Your task to perform on an android device: Open Youtube and go to "Your channel" Image 0: 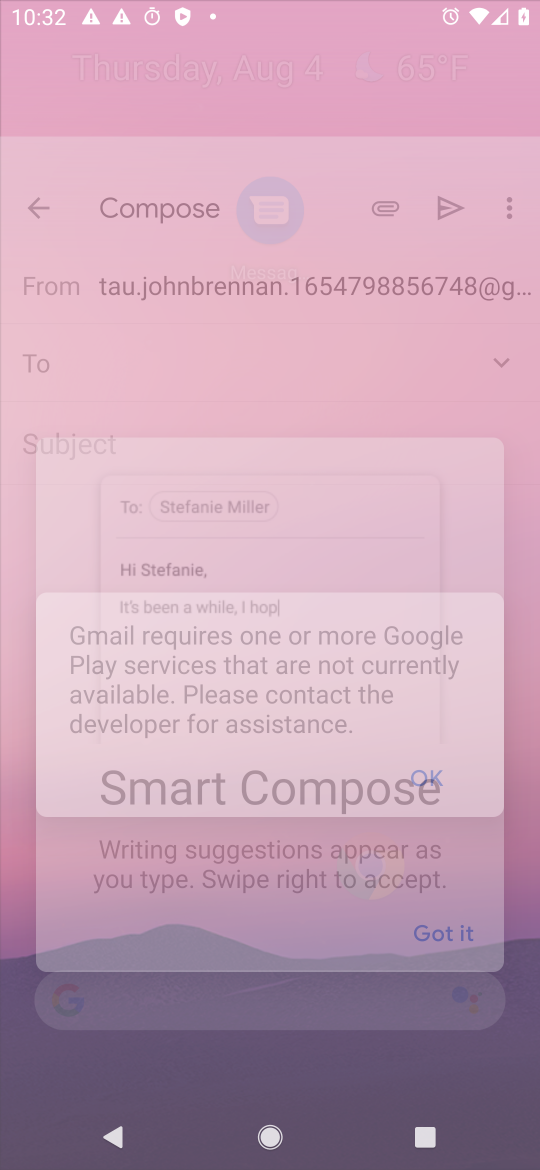
Step 0: click (321, 319)
Your task to perform on an android device: Open Youtube and go to "Your channel" Image 1: 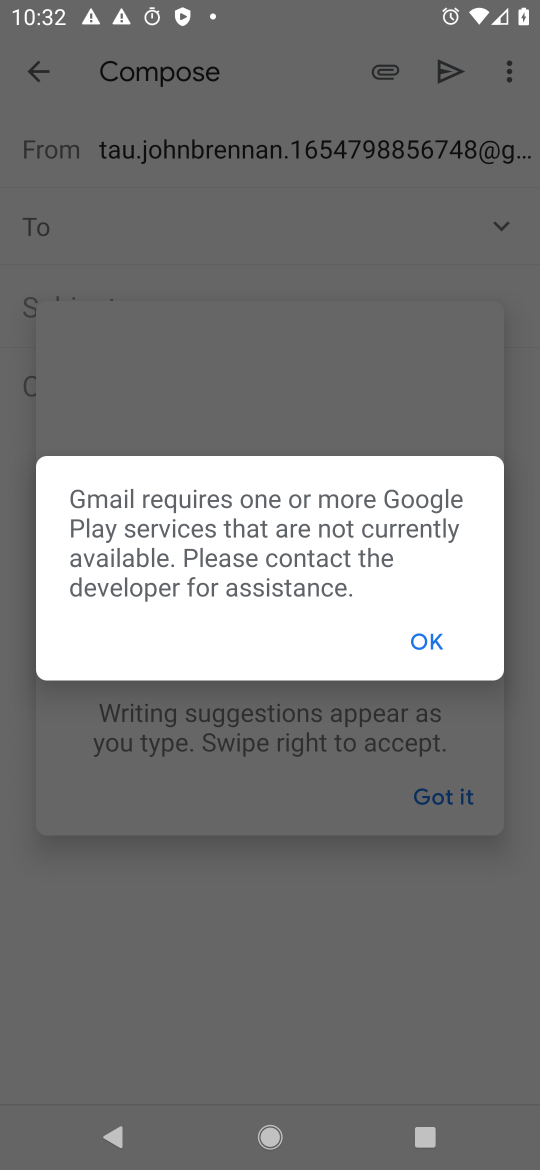
Step 1: drag from (268, 994) to (328, 470)
Your task to perform on an android device: Open Youtube and go to "Your channel" Image 2: 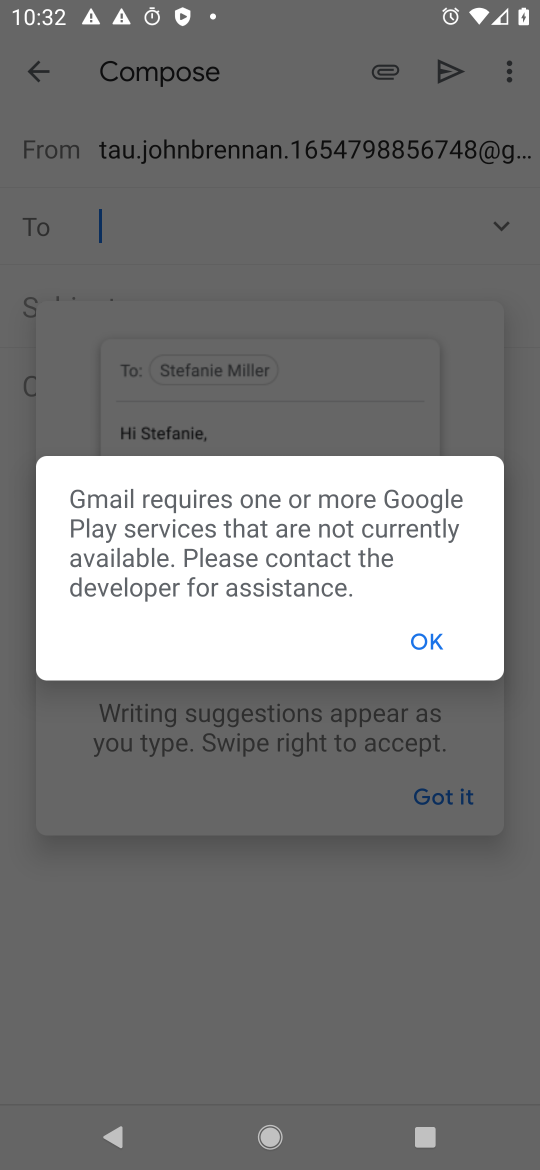
Step 2: press home button
Your task to perform on an android device: Open Youtube and go to "Your channel" Image 3: 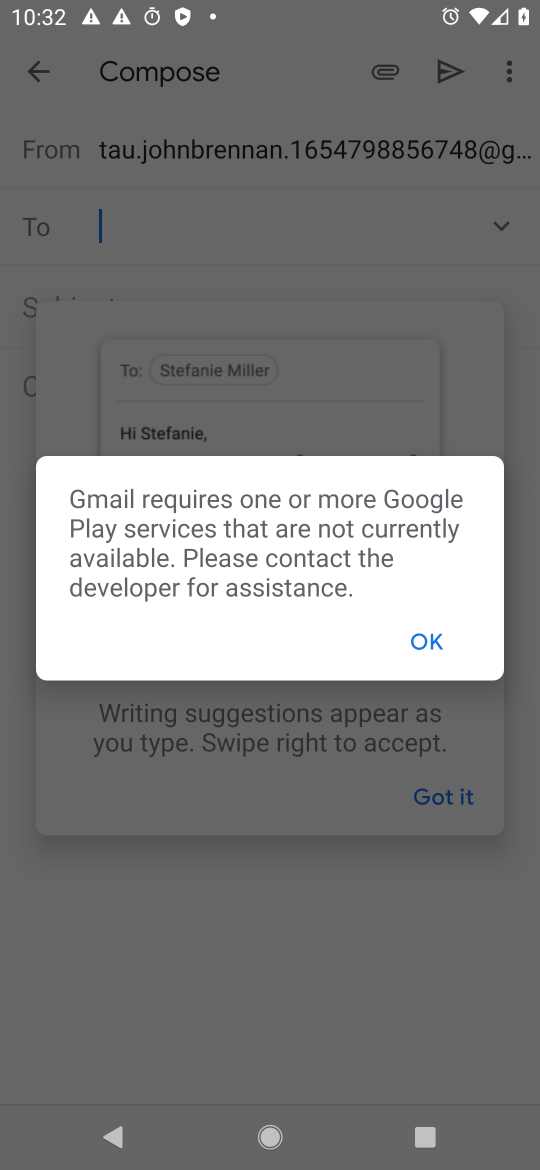
Step 3: click (256, 537)
Your task to perform on an android device: Open Youtube and go to "Your channel" Image 4: 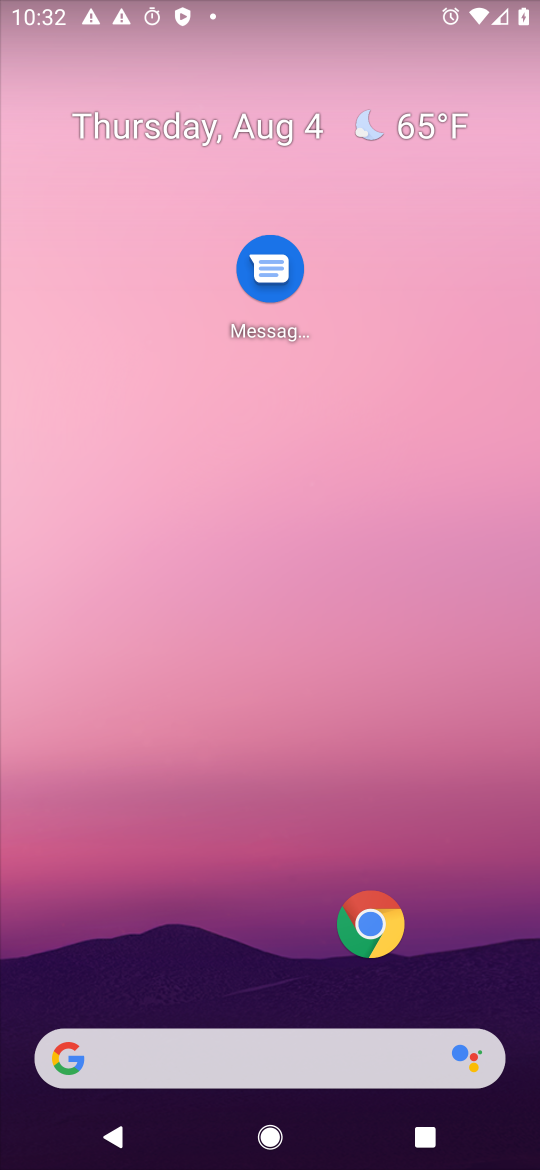
Step 4: drag from (200, 939) to (279, 362)
Your task to perform on an android device: Open Youtube and go to "Your channel" Image 5: 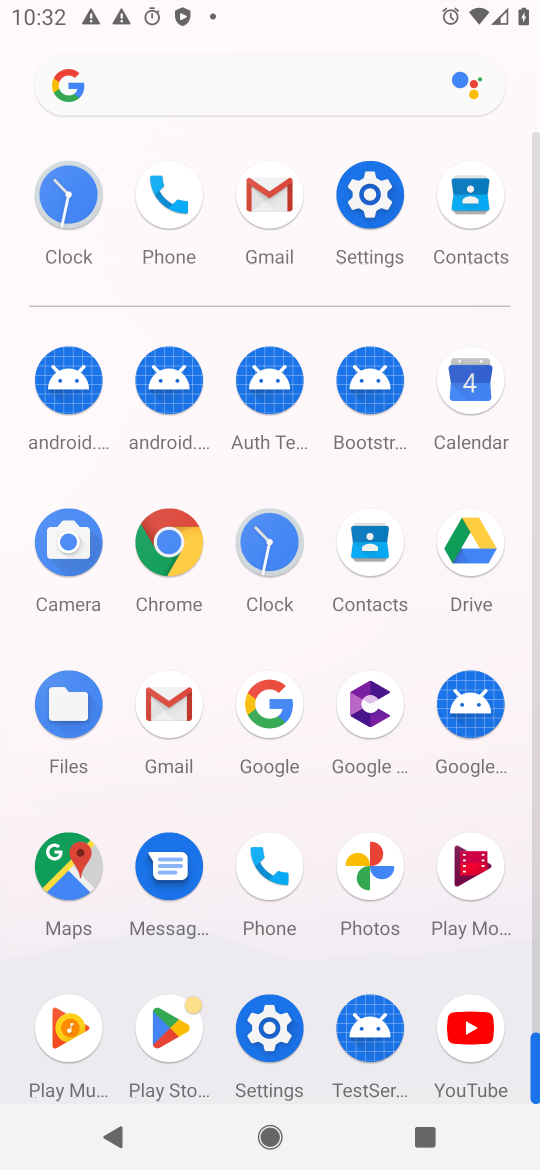
Step 5: drag from (225, 958) to (245, 494)
Your task to perform on an android device: Open Youtube and go to "Your channel" Image 6: 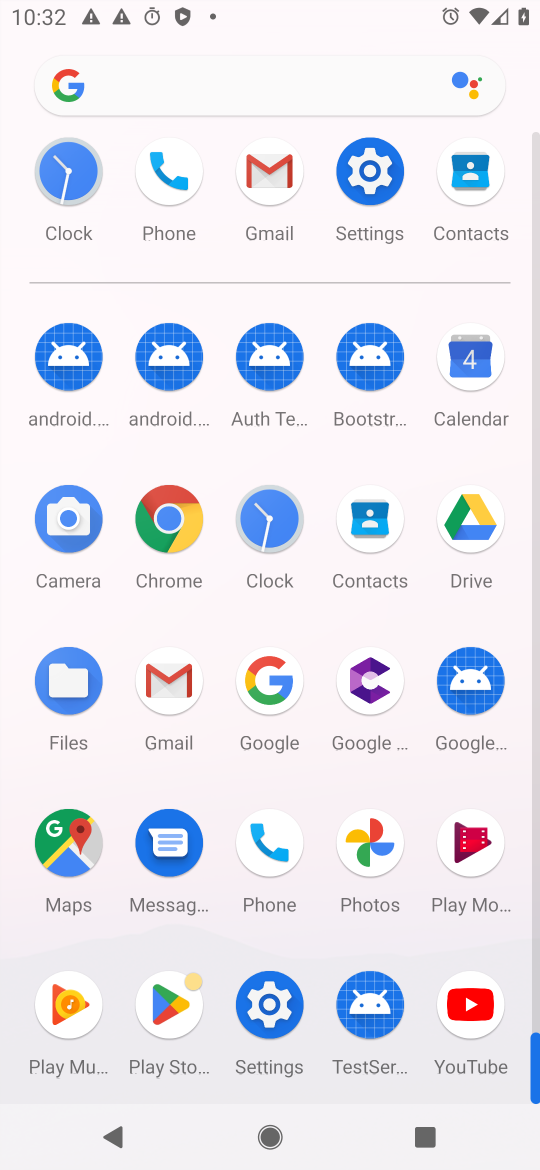
Step 6: drag from (208, 999) to (247, 393)
Your task to perform on an android device: Open Youtube and go to "Your channel" Image 7: 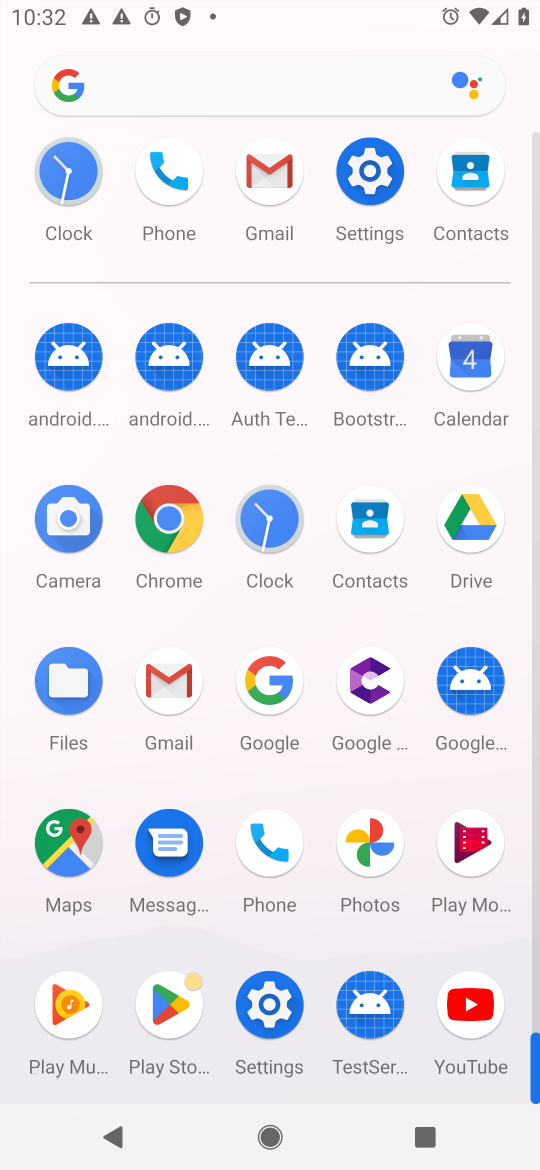
Step 7: click (471, 1003)
Your task to perform on an android device: Open Youtube and go to "Your channel" Image 8: 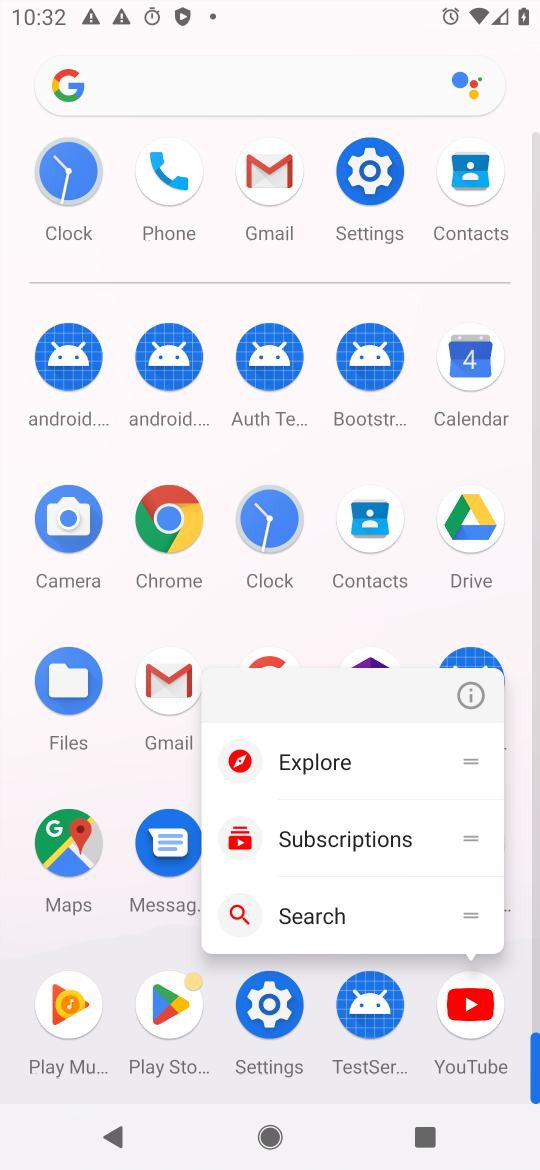
Step 8: click (472, 690)
Your task to perform on an android device: Open Youtube and go to "Your channel" Image 9: 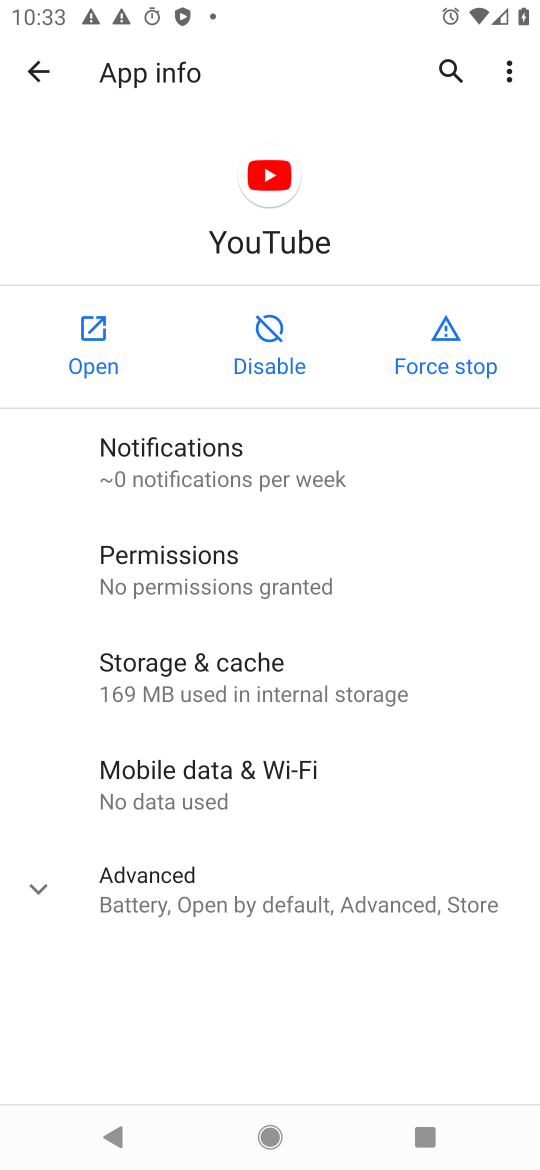
Step 9: click (85, 347)
Your task to perform on an android device: Open Youtube and go to "Your channel" Image 10: 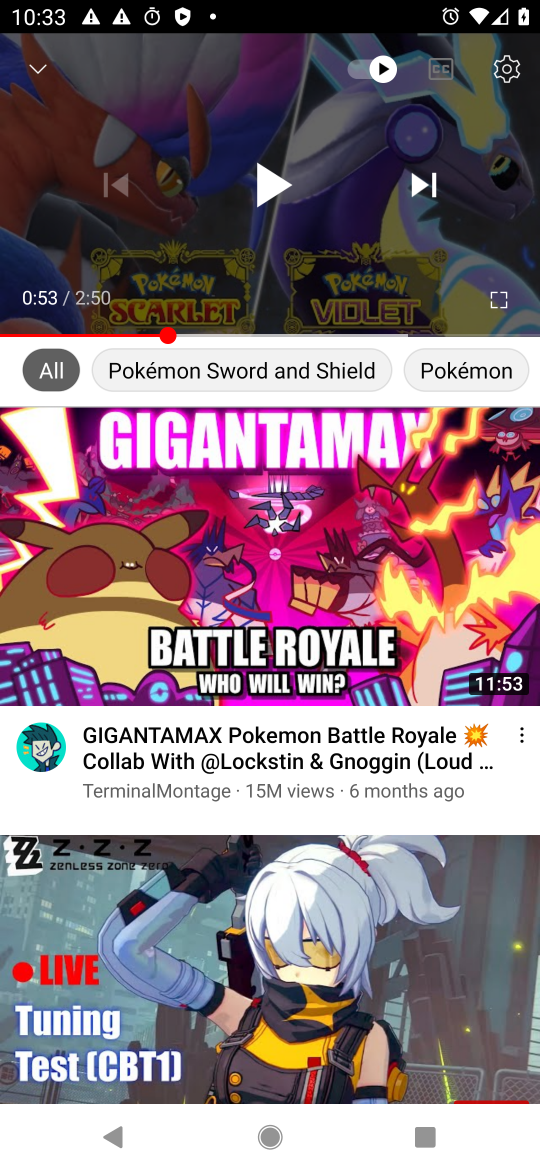
Step 10: drag from (263, 718) to (243, 240)
Your task to perform on an android device: Open Youtube and go to "Your channel" Image 11: 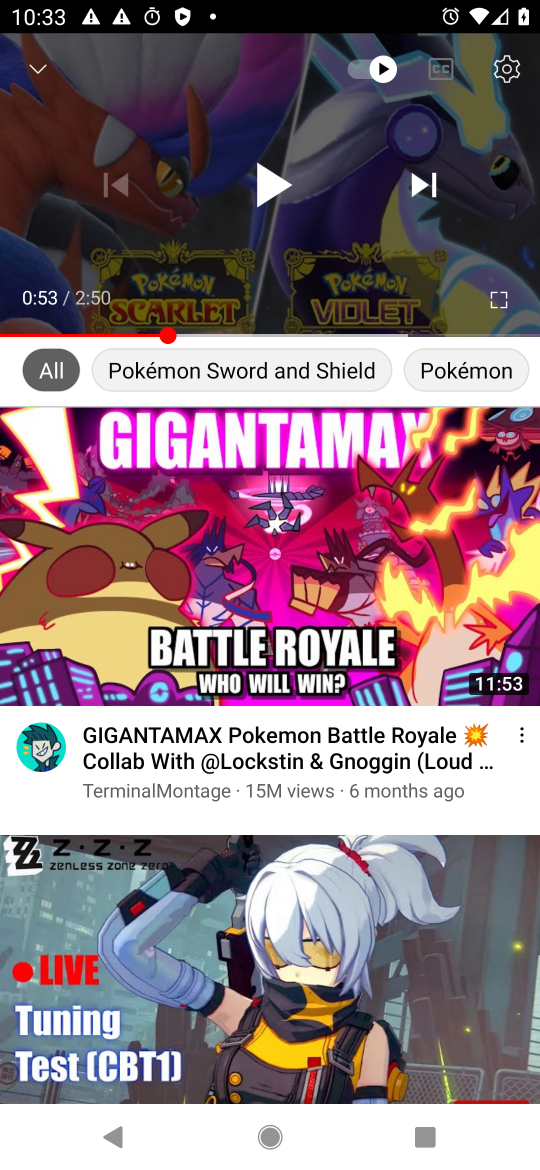
Step 11: drag from (301, 711) to (378, 1150)
Your task to perform on an android device: Open Youtube and go to "Your channel" Image 12: 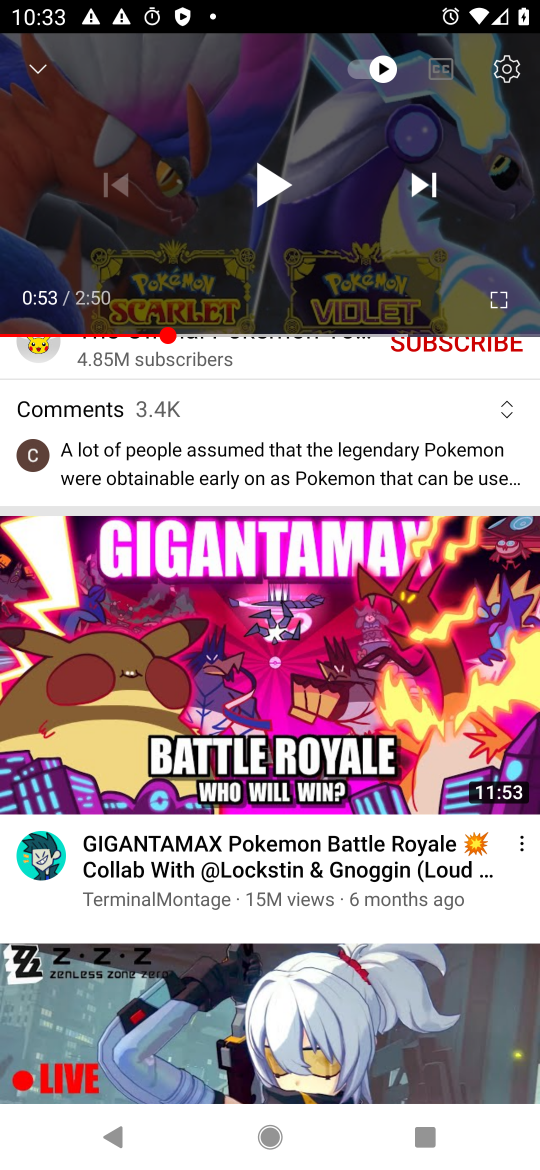
Step 12: drag from (231, 462) to (260, 963)
Your task to perform on an android device: Open Youtube and go to "Your channel" Image 13: 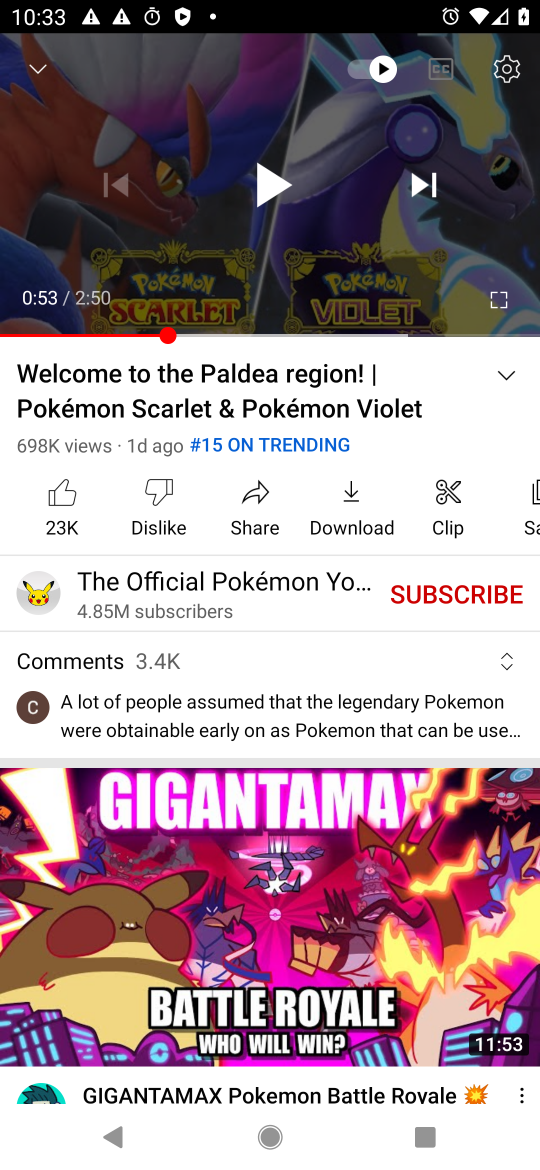
Step 13: drag from (256, 682) to (260, 523)
Your task to perform on an android device: Open Youtube and go to "Your channel" Image 14: 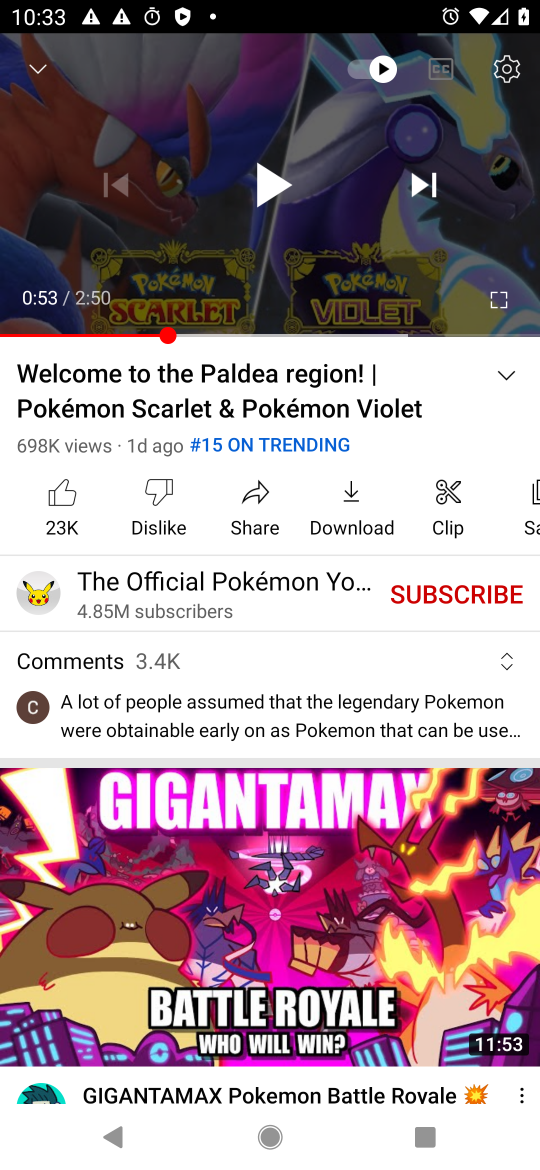
Step 14: drag from (226, 229) to (514, 1164)
Your task to perform on an android device: Open Youtube and go to "Your channel" Image 15: 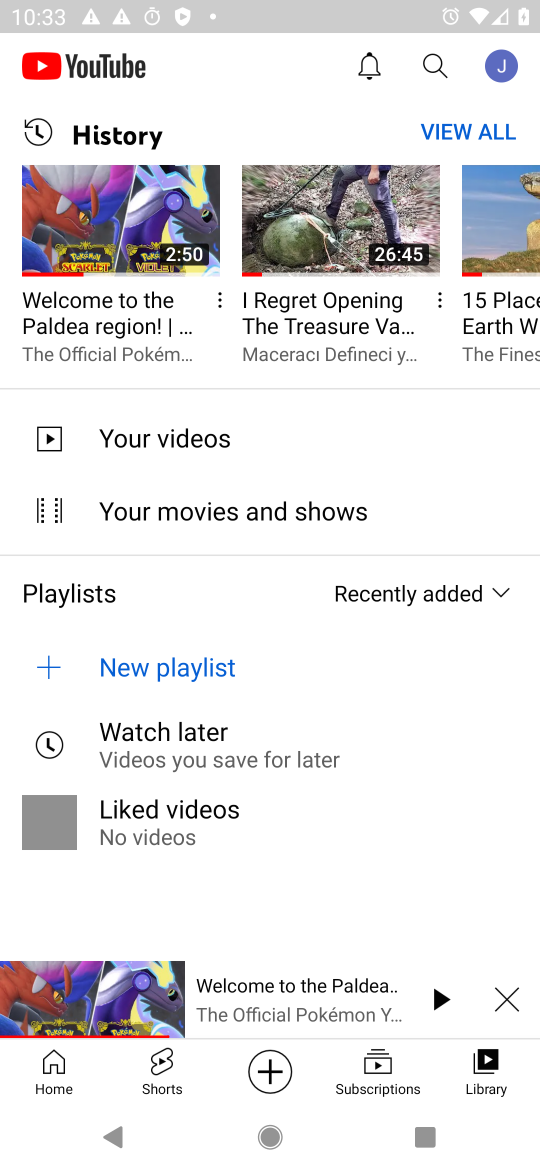
Step 15: click (500, 57)
Your task to perform on an android device: Open Youtube and go to "Your channel" Image 16: 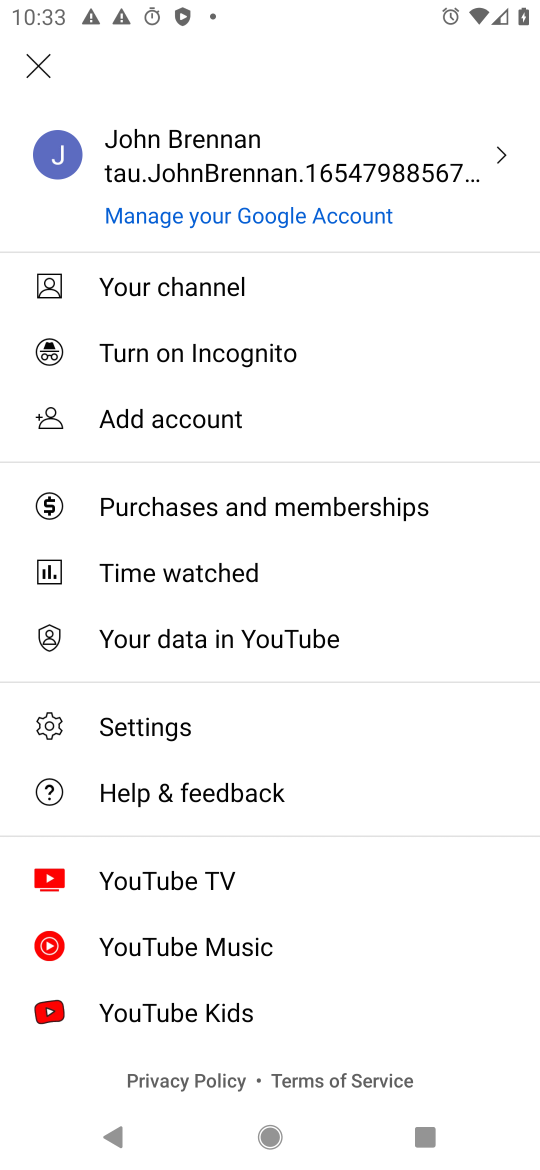
Step 16: click (170, 278)
Your task to perform on an android device: Open Youtube and go to "Your channel" Image 17: 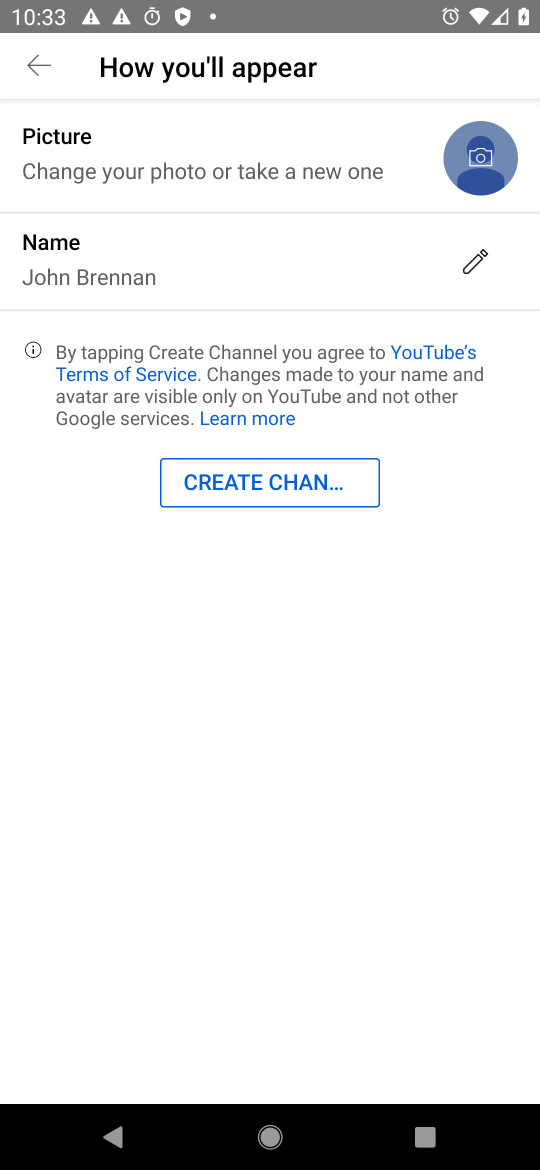
Step 17: task complete